Your task to perform on an android device: toggle data saver in the chrome app Image 0: 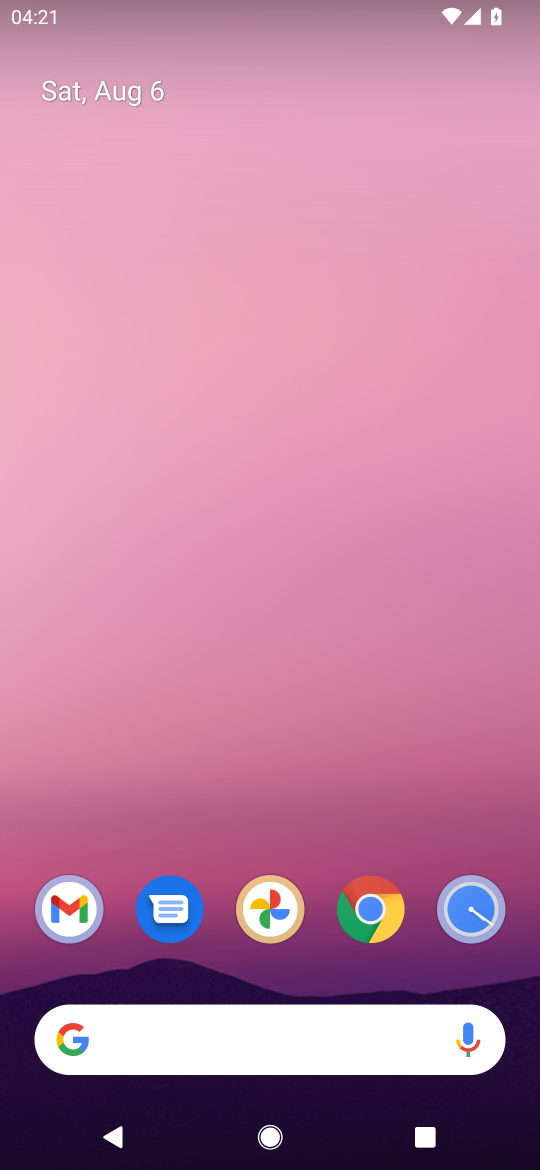
Step 0: click (404, 909)
Your task to perform on an android device: toggle data saver in the chrome app Image 1: 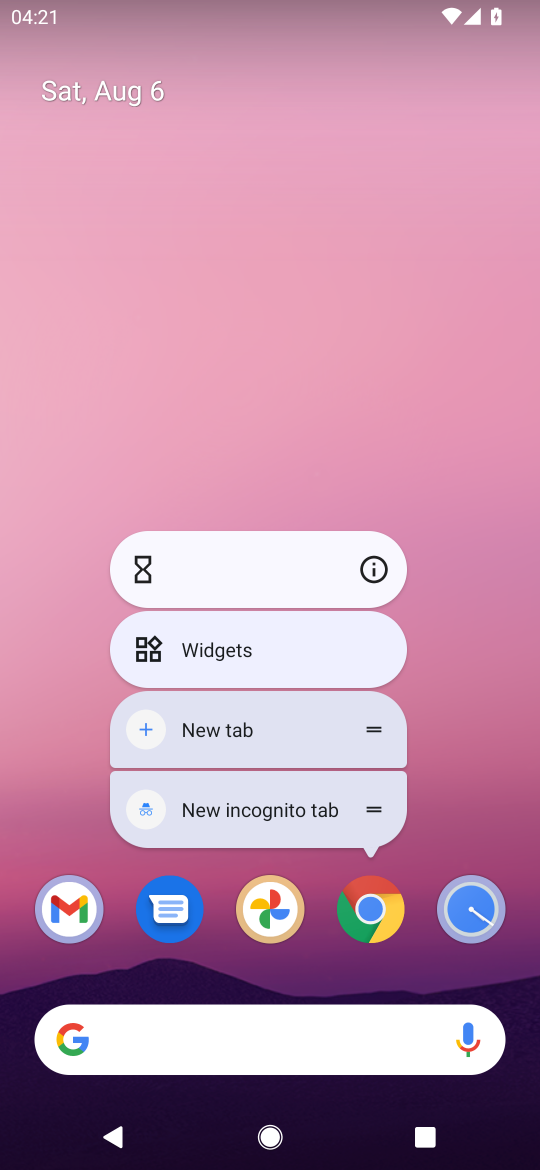
Step 1: click (362, 899)
Your task to perform on an android device: toggle data saver in the chrome app Image 2: 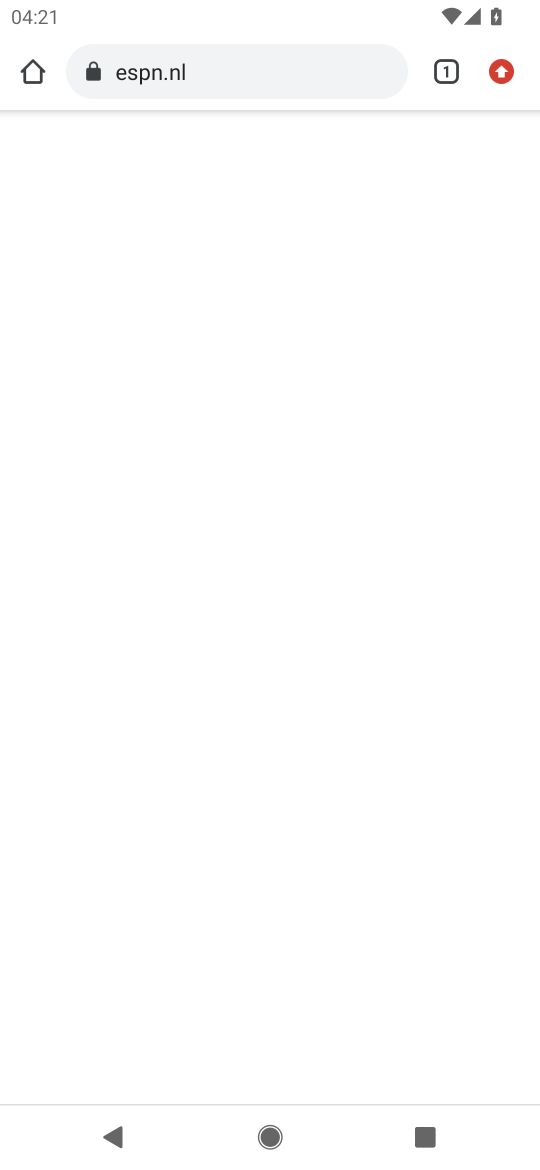
Step 2: drag from (494, 75) to (279, 935)
Your task to perform on an android device: toggle data saver in the chrome app Image 3: 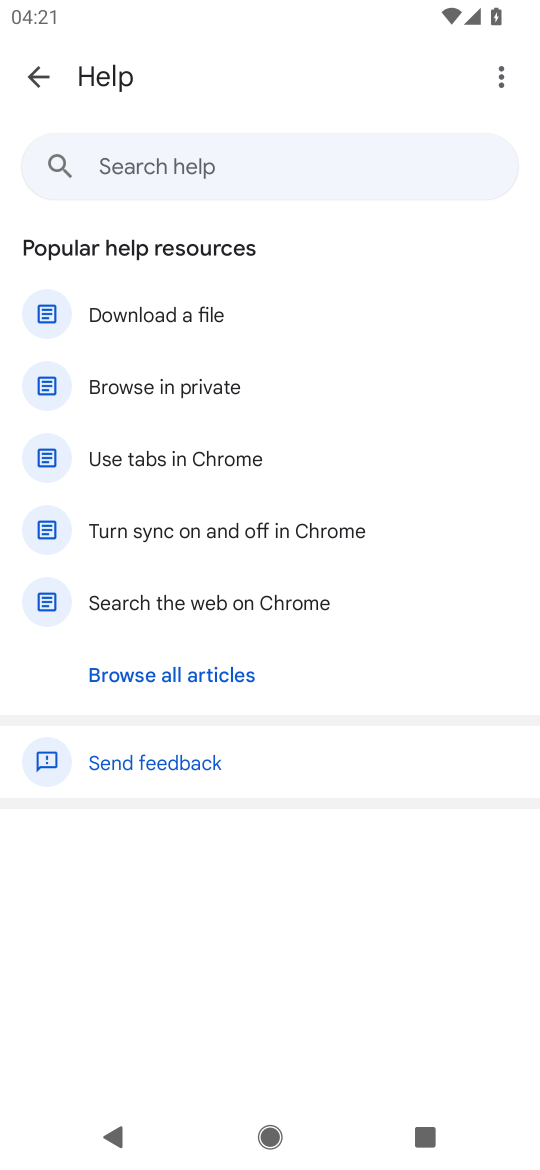
Step 3: click (31, 74)
Your task to perform on an android device: toggle data saver in the chrome app Image 4: 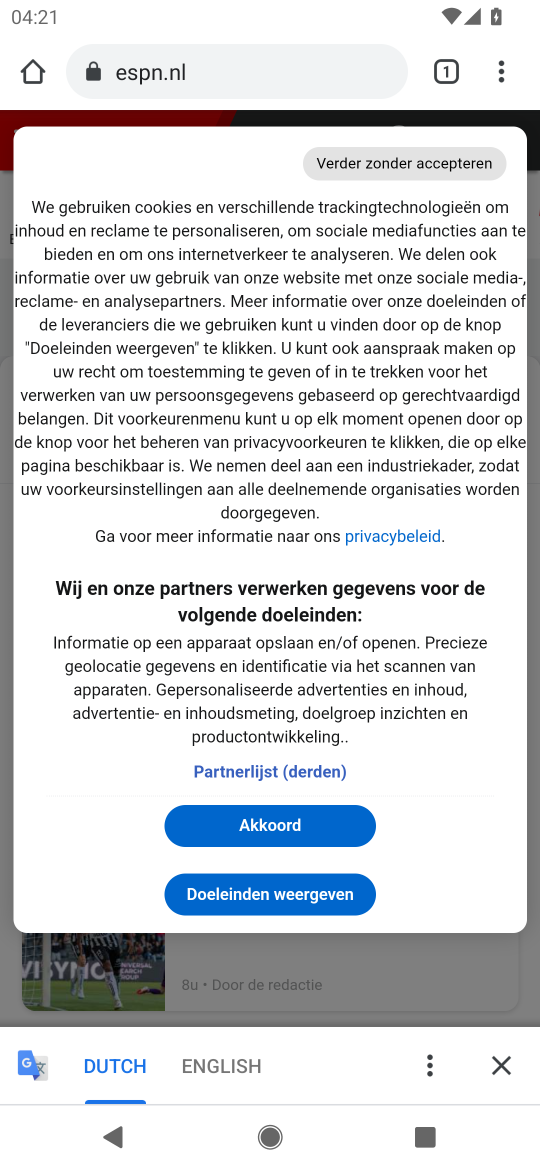
Step 4: drag from (495, 75) to (296, 888)
Your task to perform on an android device: toggle data saver in the chrome app Image 5: 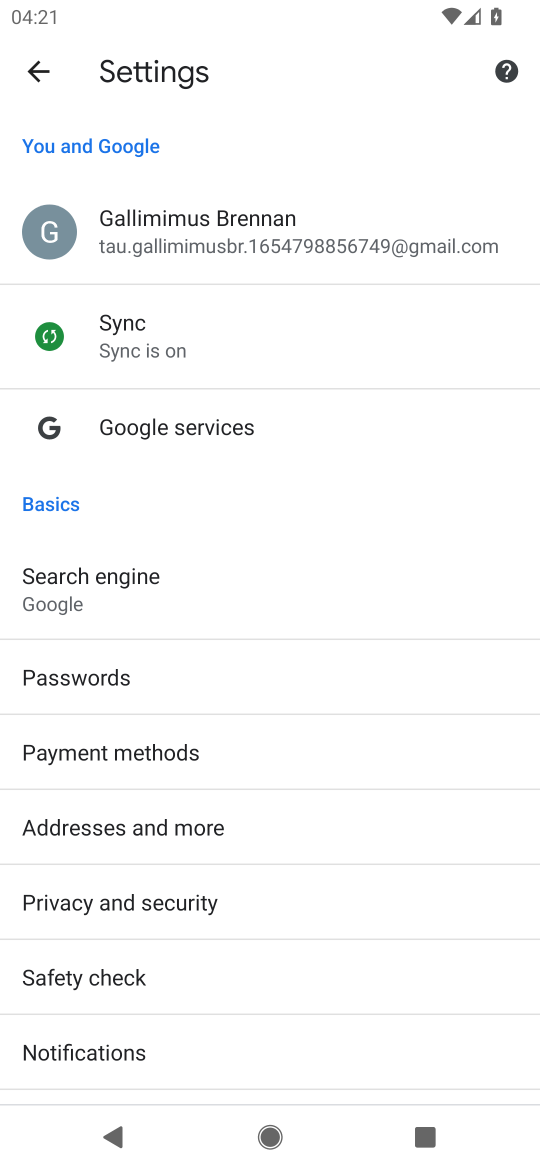
Step 5: drag from (259, 944) to (431, 155)
Your task to perform on an android device: toggle data saver in the chrome app Image 6: 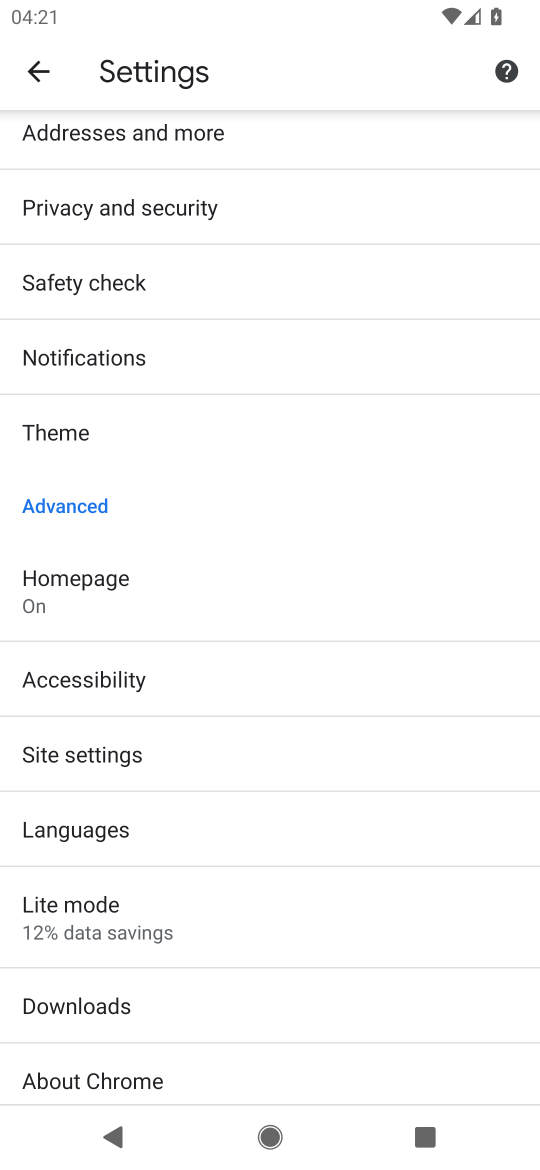
Step 6: click (154, 907)
Your task to perform on an android device: toggle data saver in the chrome app Image 7: 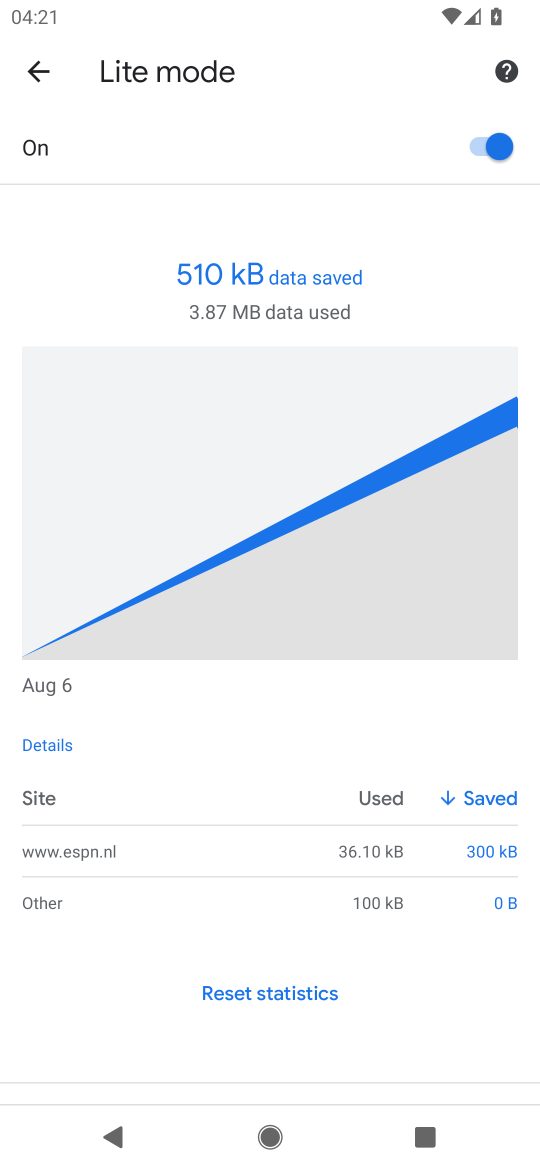
Step 7: click (498, 139)
Your task to perform on an android device: toggle data saver in the chrome app Image 8: 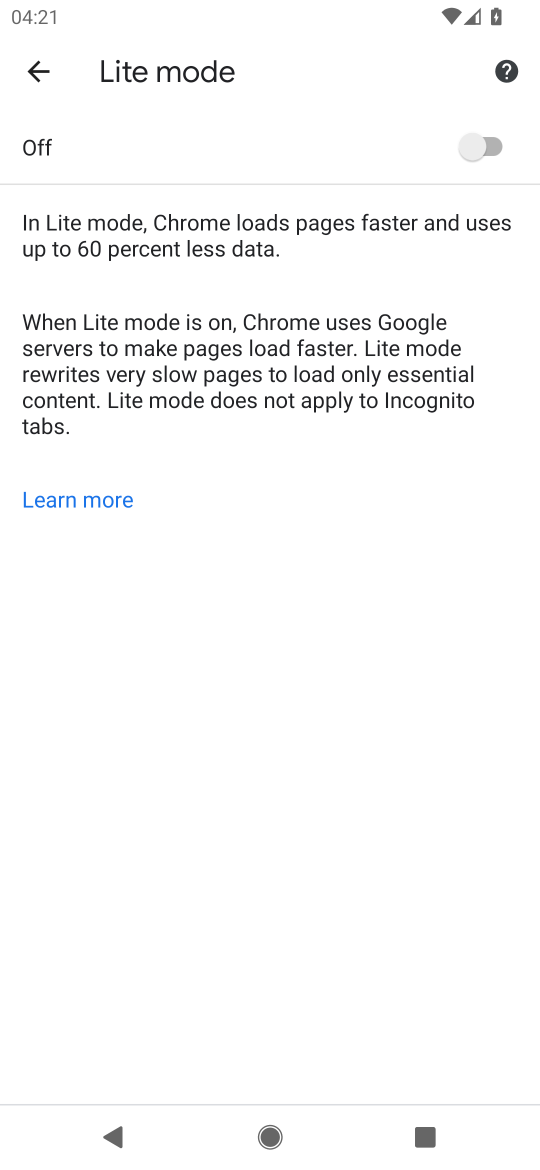
Step 8: task complete